Your task to perform on an android device: turn vacation reply on in the gmail app Image 0: 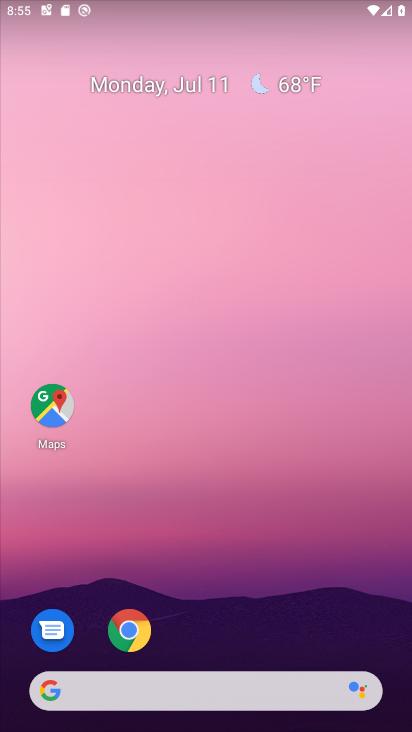
Step 0: drag from (218, 620) to (189, 29)
Your task to perform on an android device: turn vacation reply on in the gmail app Image 1: 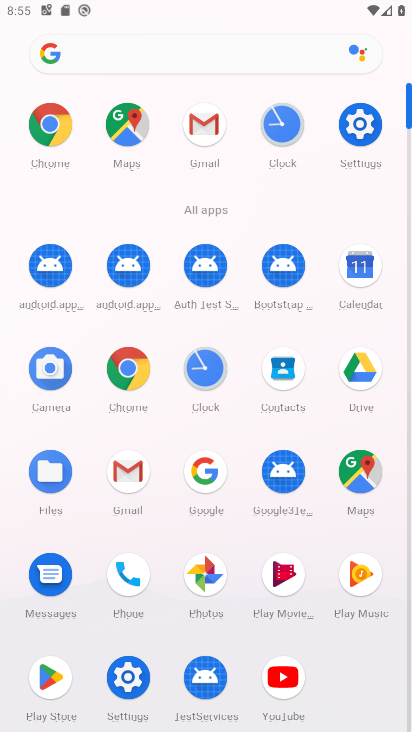
Step 1: click (132, 488)
Your task to perform on an android device: turn vacation reply on in the gmail app Image 2: 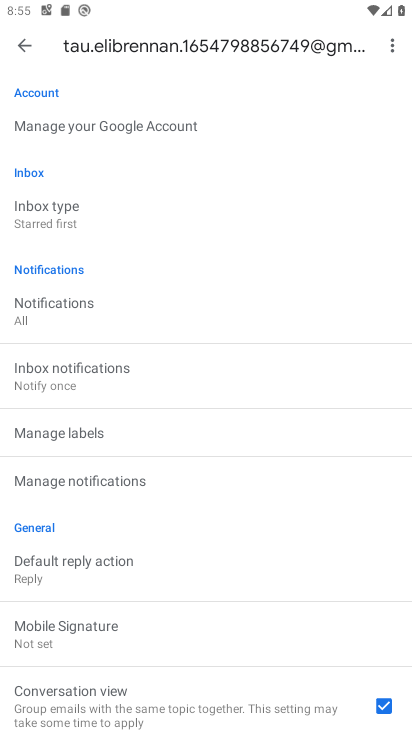
Step 2: drag from (95, 570) to (138, 86)
Your task to perform on an android device: turn vacation reply on in the gmail app Image 3: 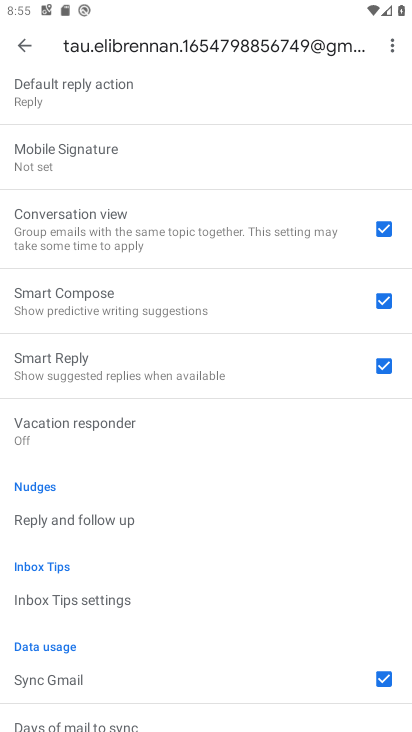
Step 3: click (140, 429)
Your task to perform on an android device: turn vacation reply on in the gmail app Image 4: 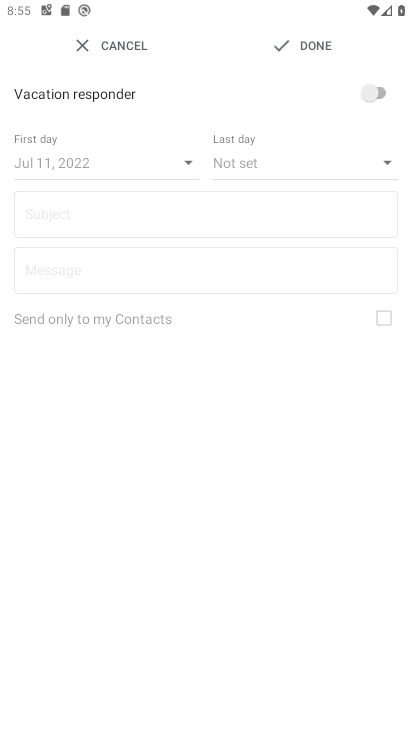
Step 4: click (382, 89)
Your task to perform on an android device: turn vacation reply on in the gmail app Image 5: 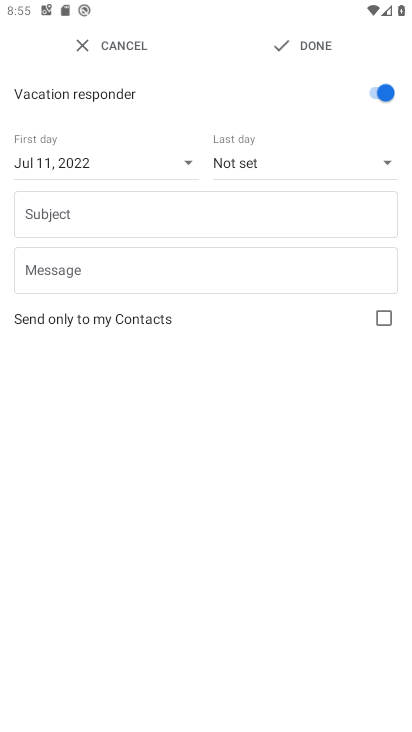
Step 5: task complete